Your task to perform on an android device: Open maps Image 0: 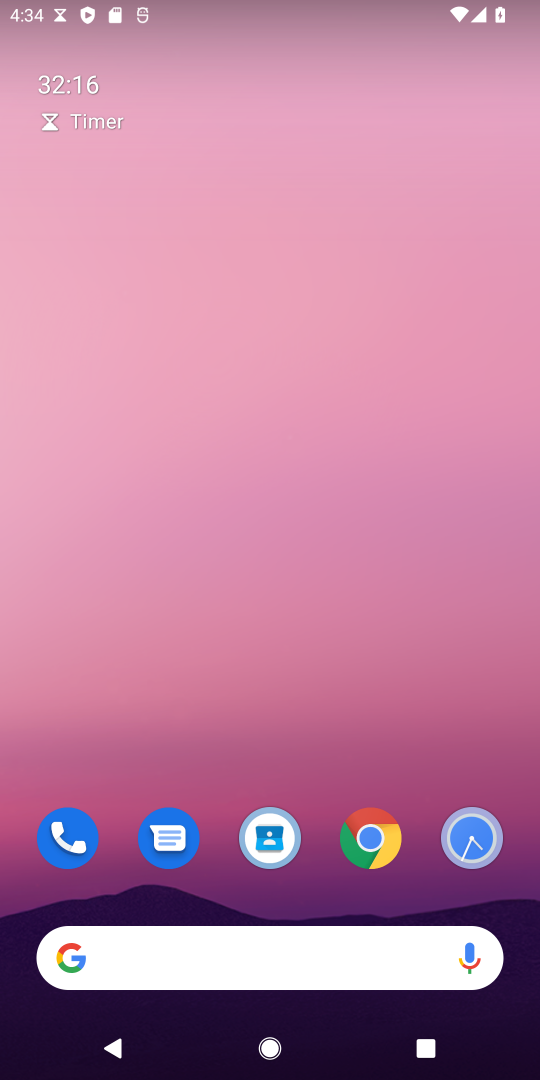
Step 0: drag from (333, 786) to (236, 103)
Your task to perform on an android device: Open maps Image 1: 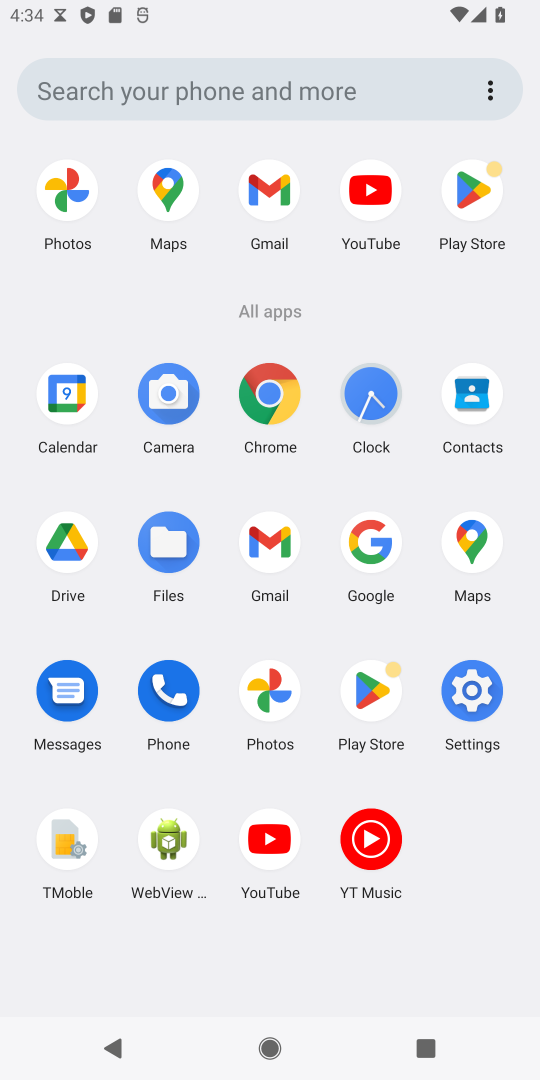
Step 1: click (173, 185)
Your task to perform on an android device: Open maps Image 2: 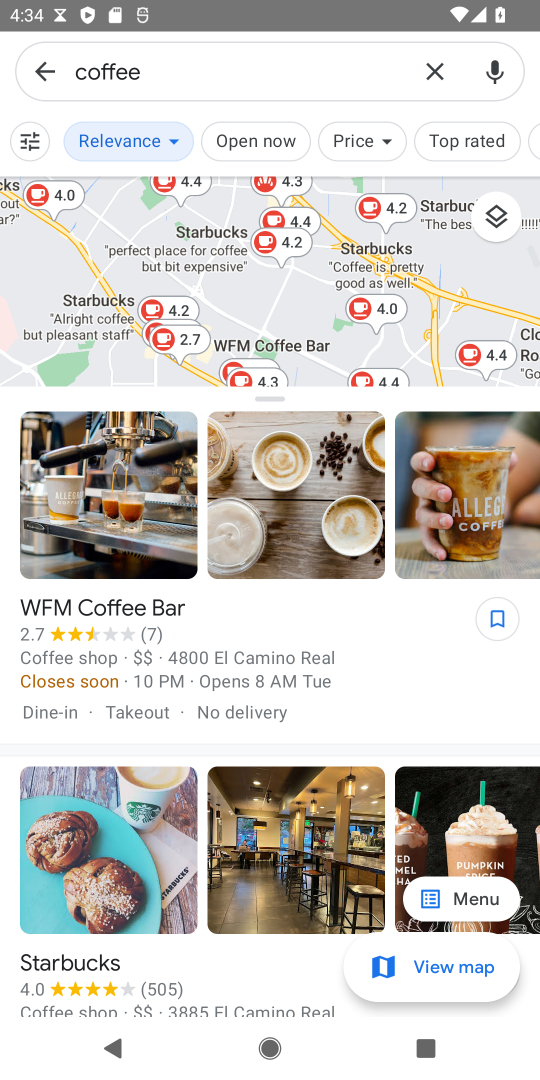
Step 2: task complete